Your task to perform on an android device: Is it going to rain this weekend? Image 0: 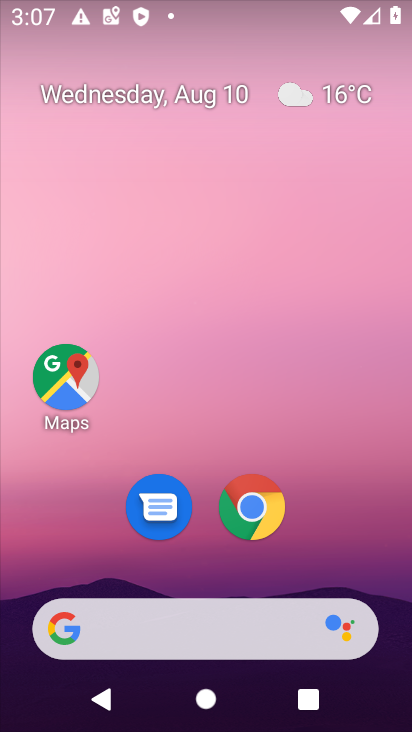
Step 0: drag from (342, 528) to (334, 14)
Your task to perform on an android device: Is it going to rain this weekend? Image 1: 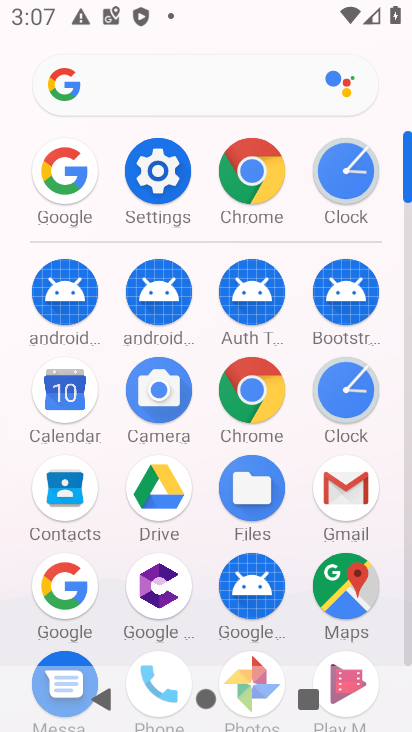
Step 1: press home button
Your task to perform on an android device: Is it going to rain this weekend? Image 2: 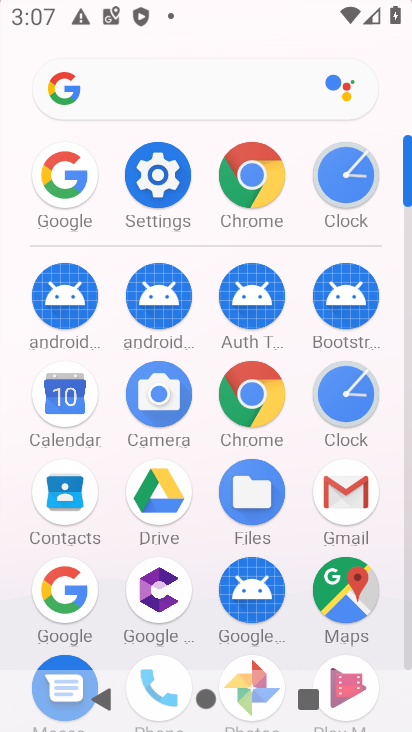
Step 2: press home button
Your task to perform on an android device: Is it going to rain this weekend? Image 3: 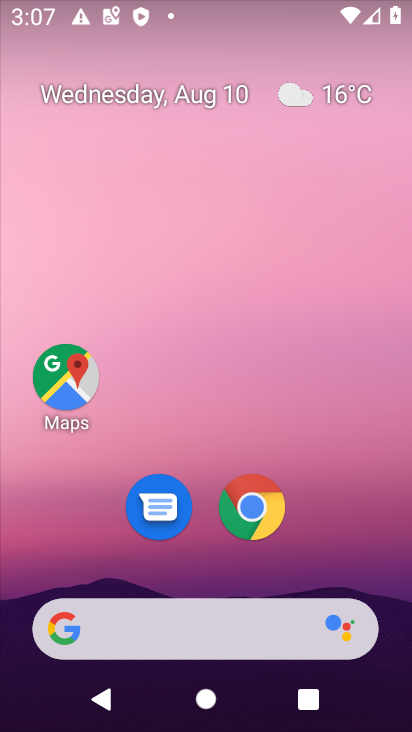
Step 3: click (350, 93)
Your task to perform on an android device: Is it going to rain this weekend? Image 4: 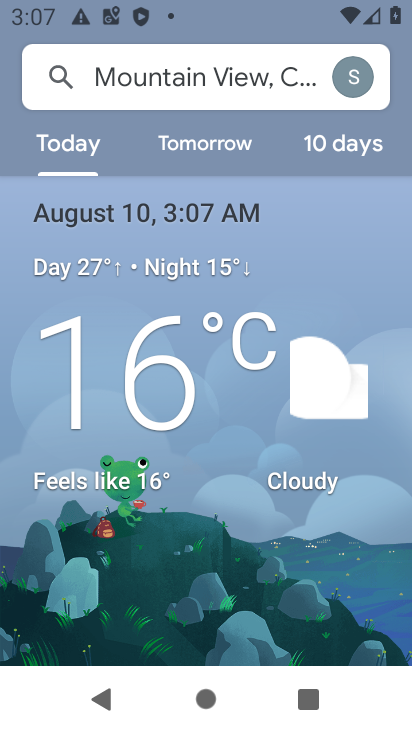
Step 4: click (339, 133)
Your task to perform on an android device: Is it going to rain this weekend? Image 5: 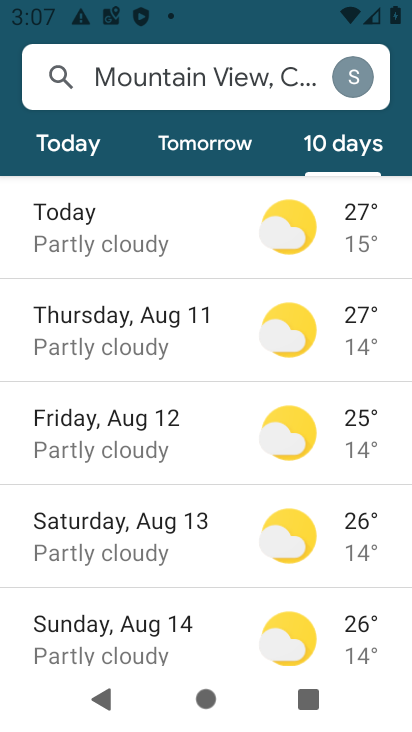
Step 5: click (152, 530)
Your task to perform on an android device: Is it going to rain this weekend? Image 6: 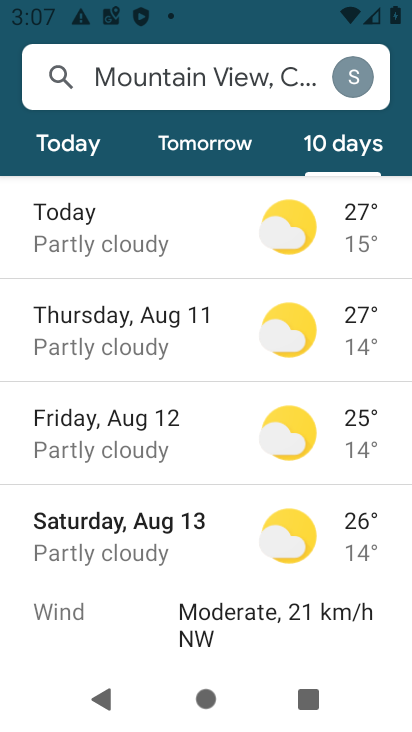
Step 6: task complete